Your task to perform on an android device: turn pop-ups on in chrome Image 0: 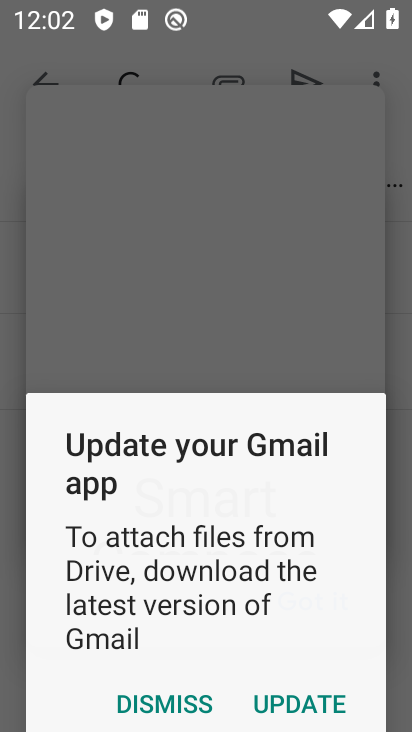
Step 0: press back button
Your task to perform on an android device: turn pop-ups on in chrome Image 1: 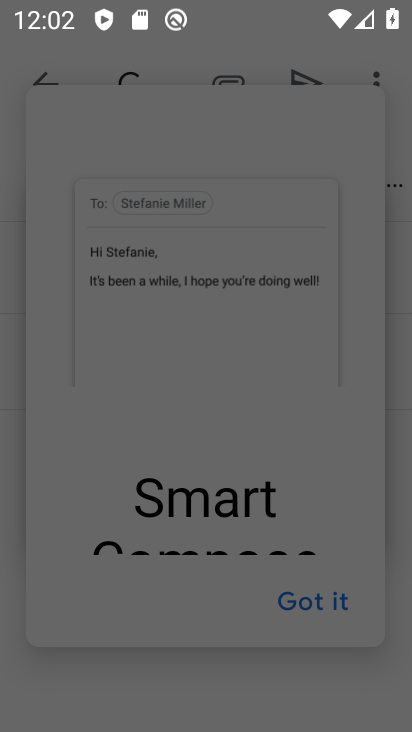
Step 1: press back button
Your task to perform on an android device: turn pop-ups on in chrome Image 2: 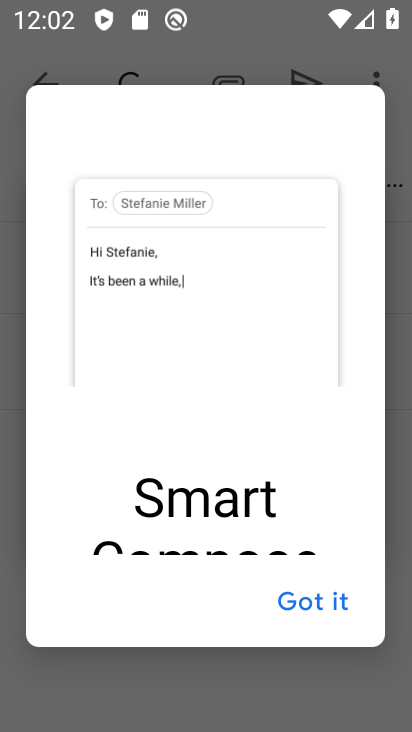
Step 2: press back button
Your task to perform on an android device: turn pop-ups on in chrome Image 3: 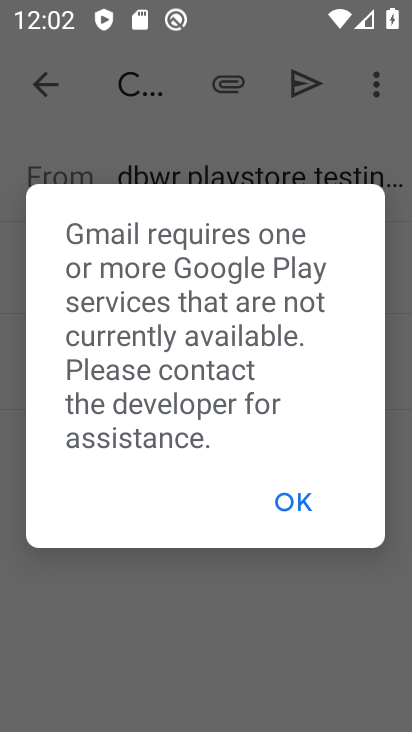
Step 3: press back button
Your task to perform on an android device: turn pop-ups on in chrome Image 4: 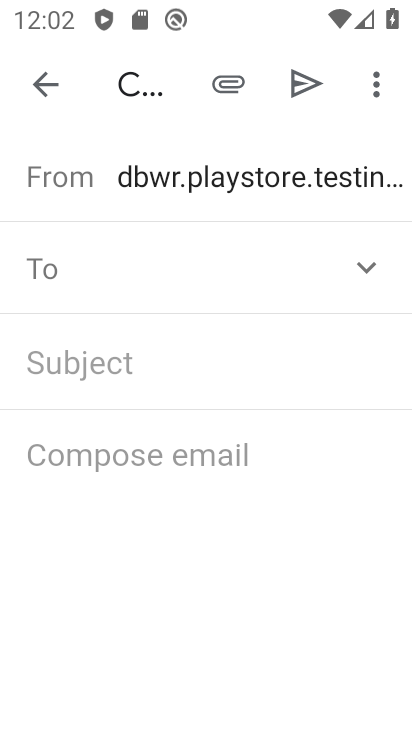
Step 4: press back button
Your task to perform on an android device: turn pop-ups on in chrome Image 5: 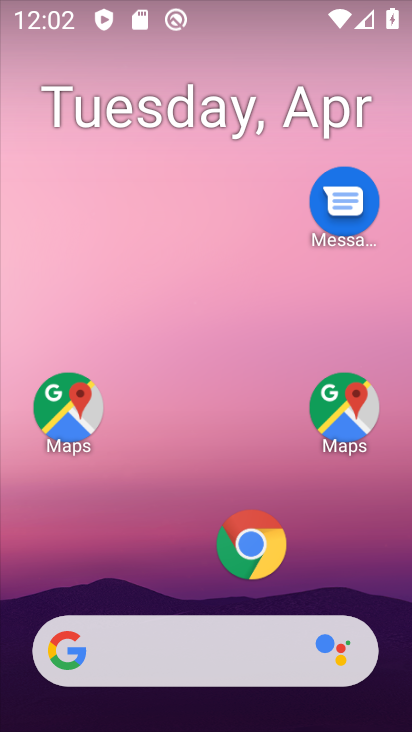
Step 5: drag from (130, 551) to (155, 148)
Your task to perform on an android device: turn pop-ups on in chrome Image 6: 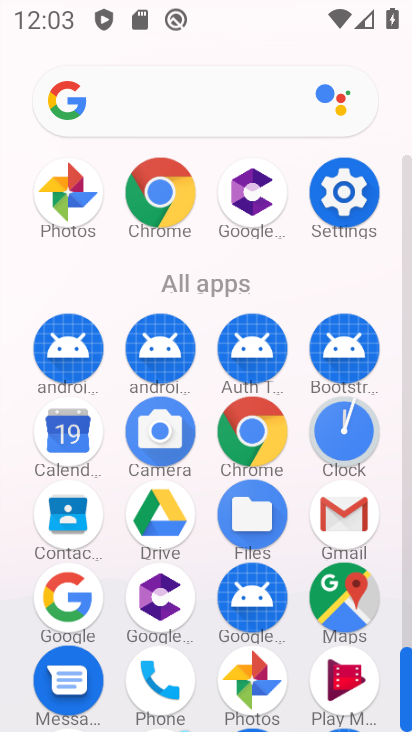
Step 6: click (248, 430)
Your task to perform on an android device: turn pop-ups on in chrome Image 7: 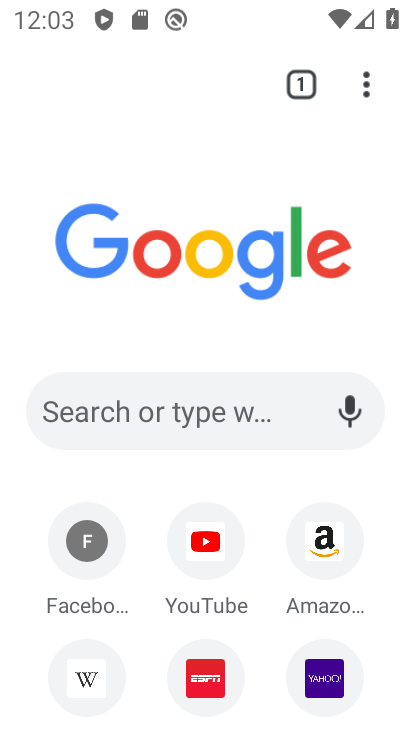
Step 7: click (372, 86)
Your task to perform on an android device: turn pop-ups on in chrome Image 8: 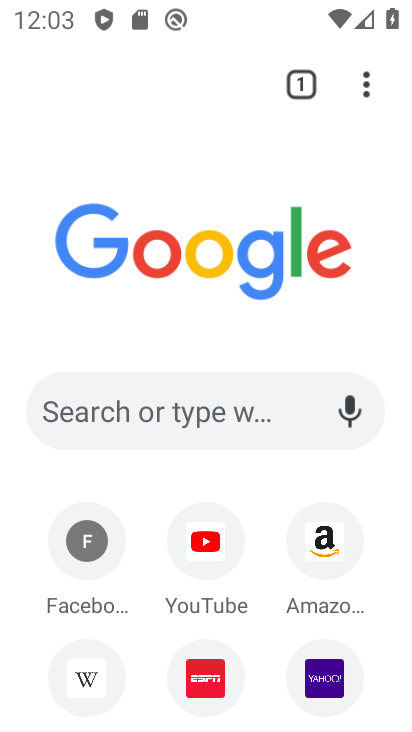
Step 8: drag from (372, 86) to (278, 568)
Your task to perform on an android device: turn pop-ups on in chrome Image 9: 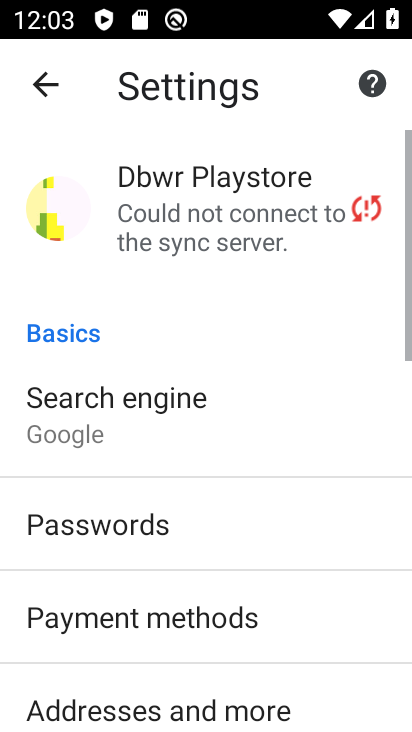
Step 9: drag from (223, 663) to (262, 375)
Your task to perform on an android device: turn pop-ups on in chrome Image 10: 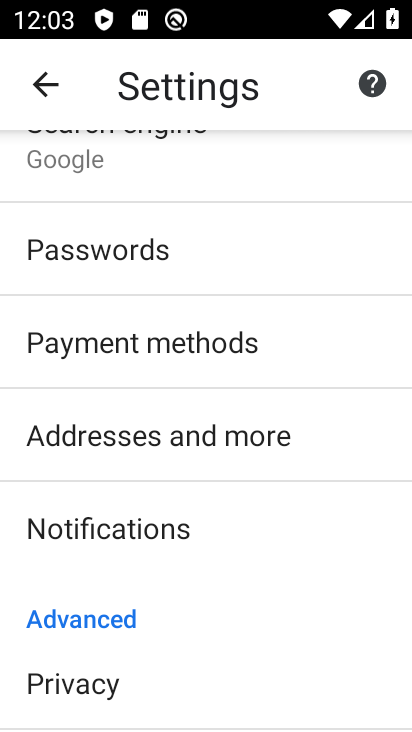
Step 10: drag from (208, 676) to (285, 312)
Your task to perform on an android device: turn pop-ups on in chrome Image 11: 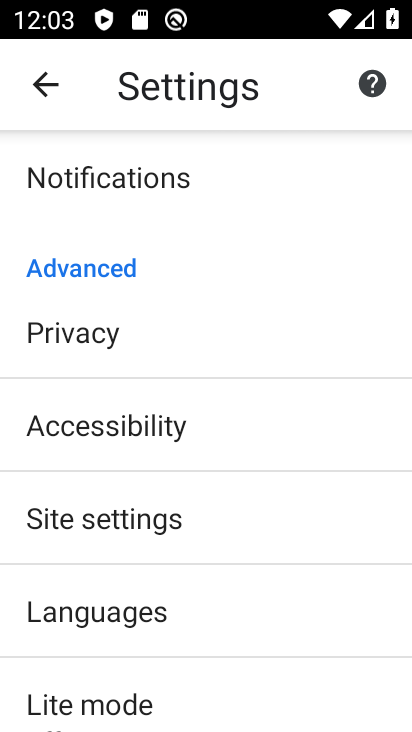
Step 11: click (183, 535)
Your task to perform on an android device: turn pop-ups on in chrome Image 12: 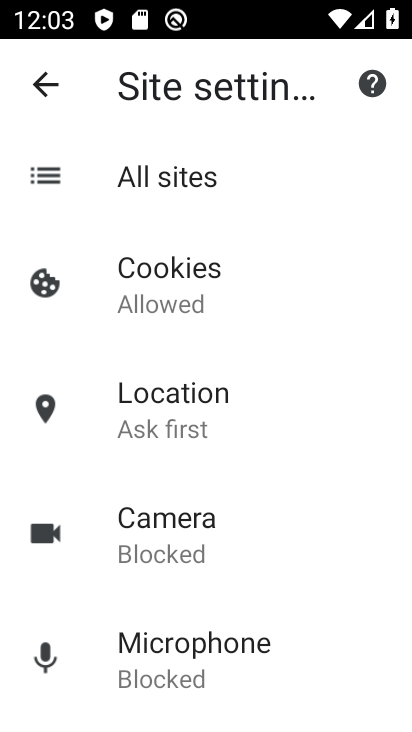
Step 12: drag from (231, 607) to (293, 205)
Your task to perform on an android device: turn pop-ups on in chrome Image 13: 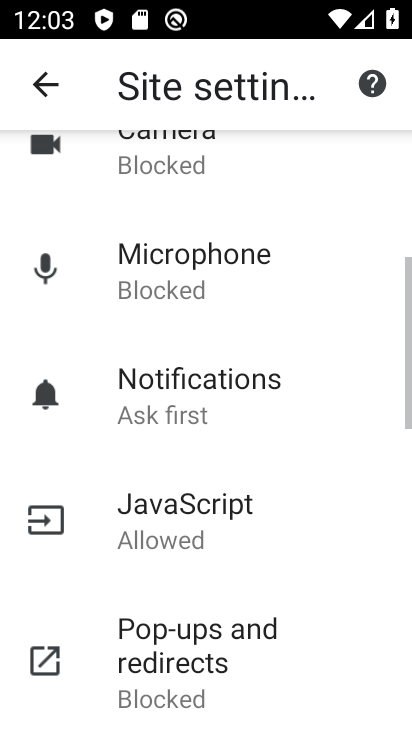
Step 13: drag from (214, 607) to (258, 347)
Your task to perform on an android device: turn pop-ups on in chrome Image 14: 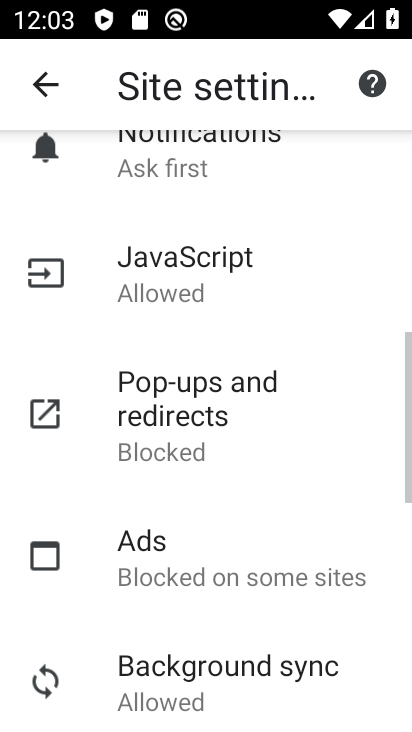
Step 14: click (219, 419)
Your task to perform on an android device: turn pop-ups on in chrome Image 15: 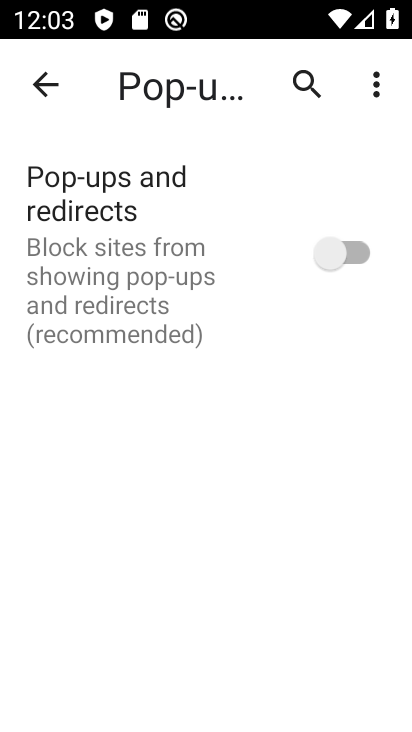
Step 15: click (381, 254)
Your task to perform on an android device: turn pop-ups on in chrome Image 16: 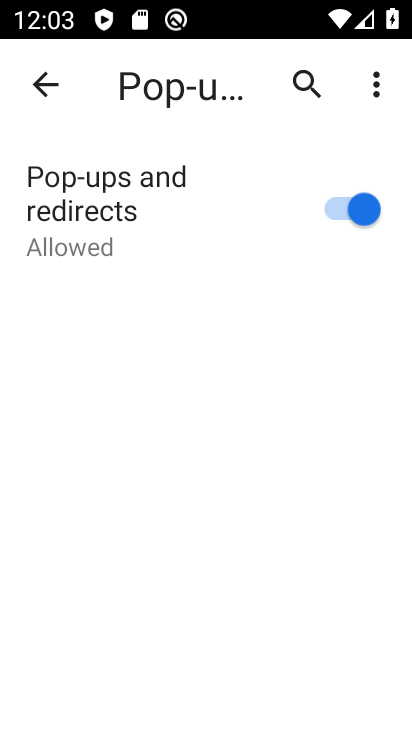
Step 16: task complete